Your task to perform on an android device: Search for "acer predator" on costco, select the first entry, and add it to the cart. Image 0: 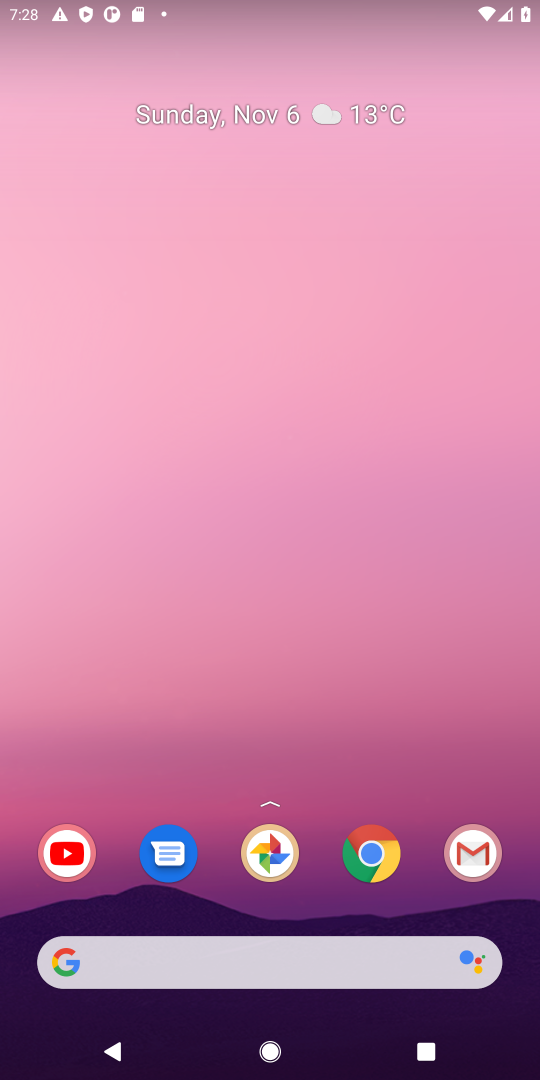
Step 0: click (371, 856)
Your task to perform on an android device: Search for "acer predator" on costco, select the first entry, and add it to the cart. Image 1: 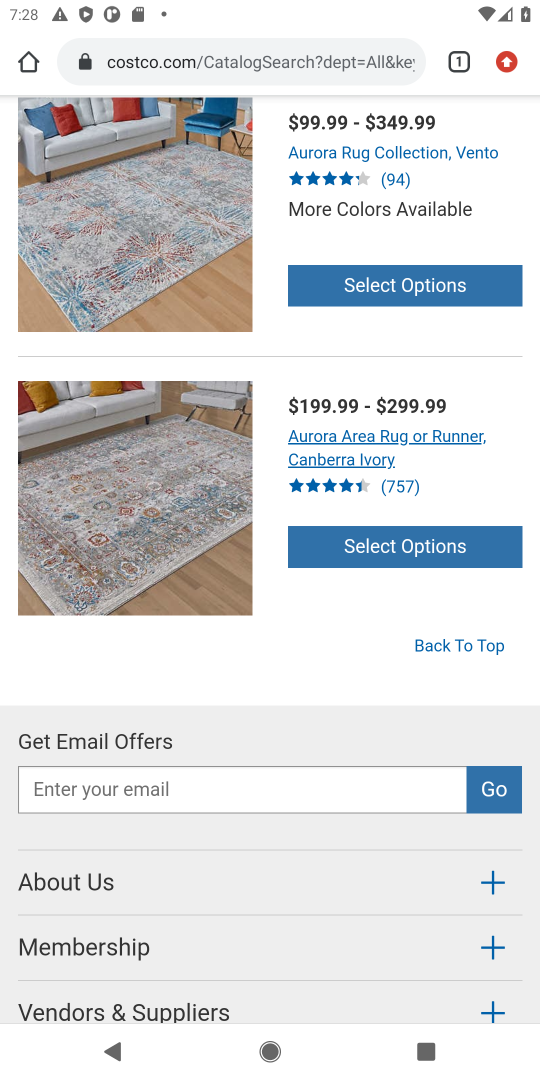
Step 1: click (270, 39)
Your task to perform on an android device: Search for "acer predator" on costco, select the first entry, and add it to the cart. Image 2: 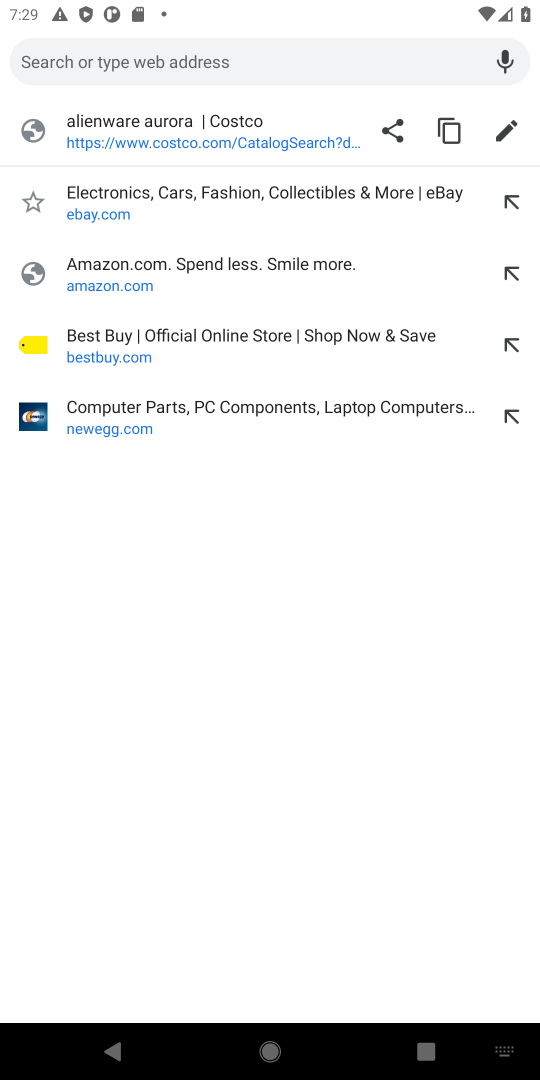
Step 2: type "costco"
Your task to perform on an android device: Search for "acer predator" on costco, select the first entry, and add it to the cart. Image 3: 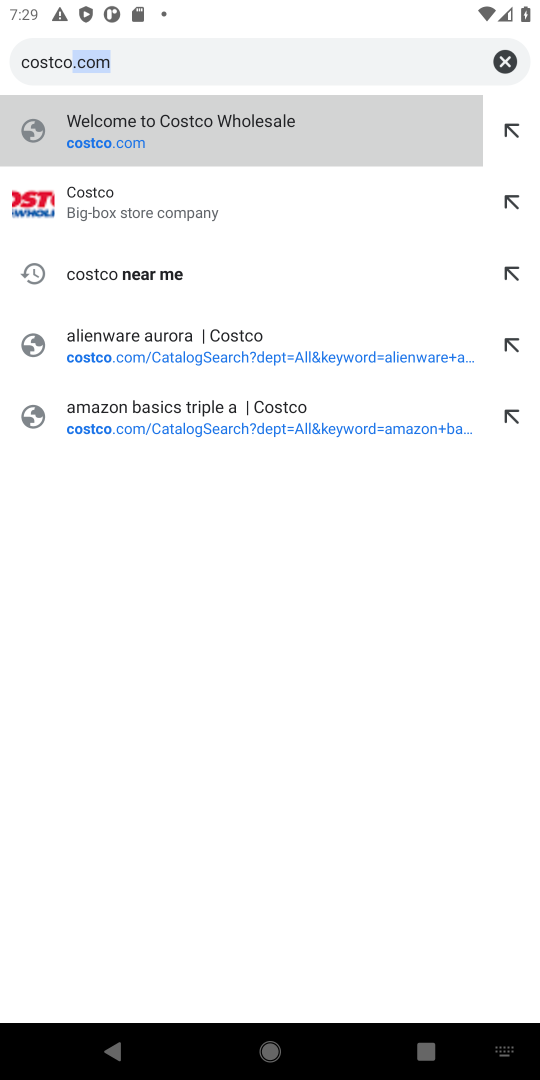
Step 3: click (92, 135)
Your task to perform on an android device: Search for "acer predator" on costco, select the first entry, and add it to the cart. Image 4: 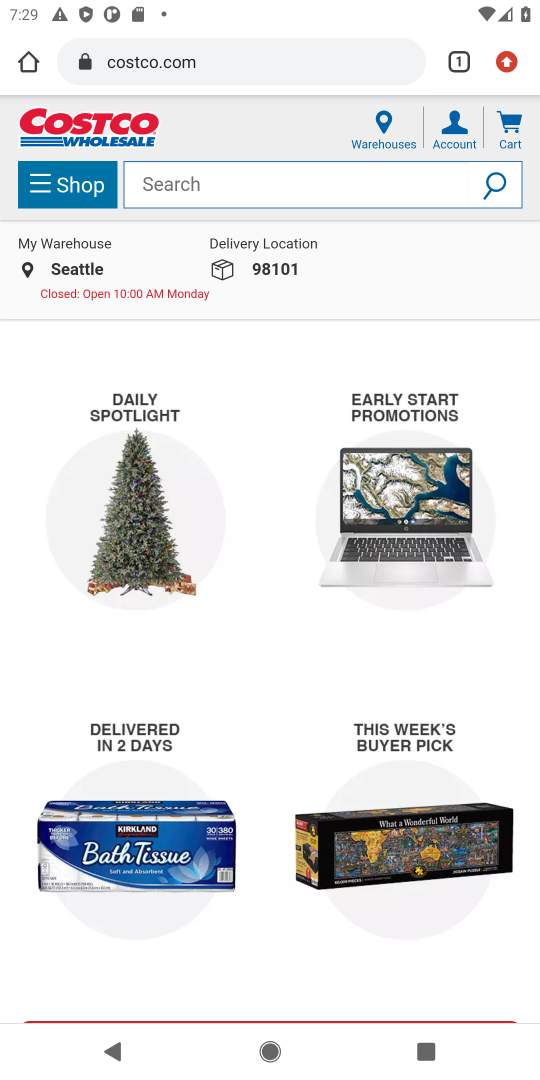
Step 4: click (281, 177)
Your task to perform on an android device: Search for "acer predator" on costco, select the first entry, and add it to the cart. Image 5: 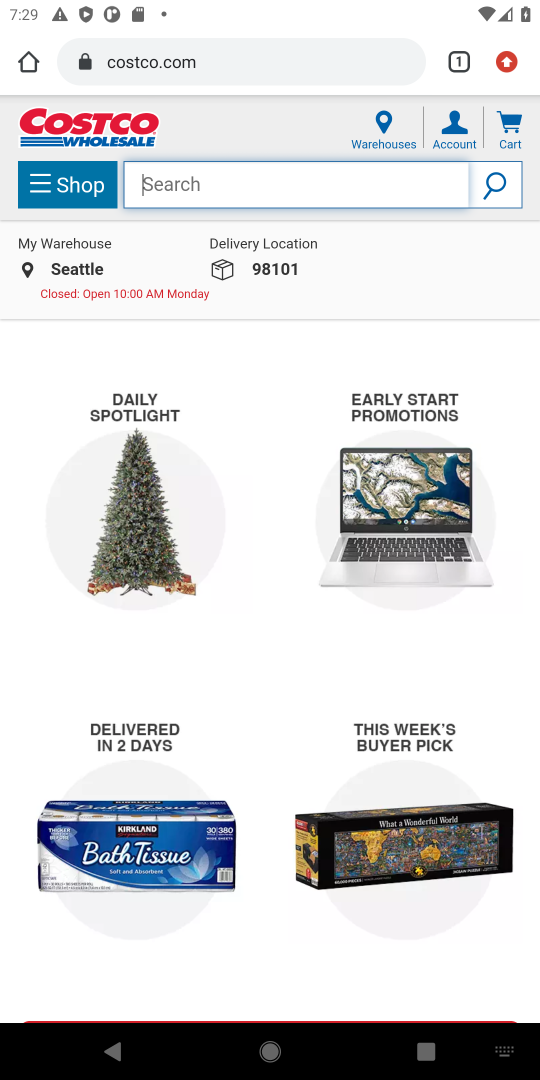
Step 5: type "acer predator"
Your task to perform on an android device: Search for "acer predator" on costco, select the first entry, and add it to the cart. Image 6: 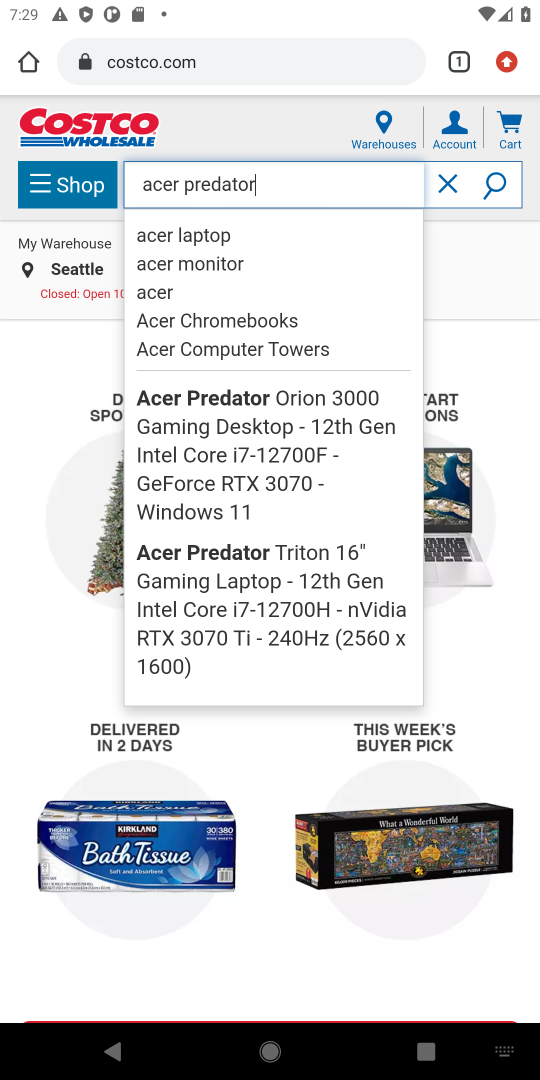
Step 6: click (494, 181)
Your task to perform on an android device: Search for "acer predator" on costco, select the first entry, and add it to the cart. Image 7: 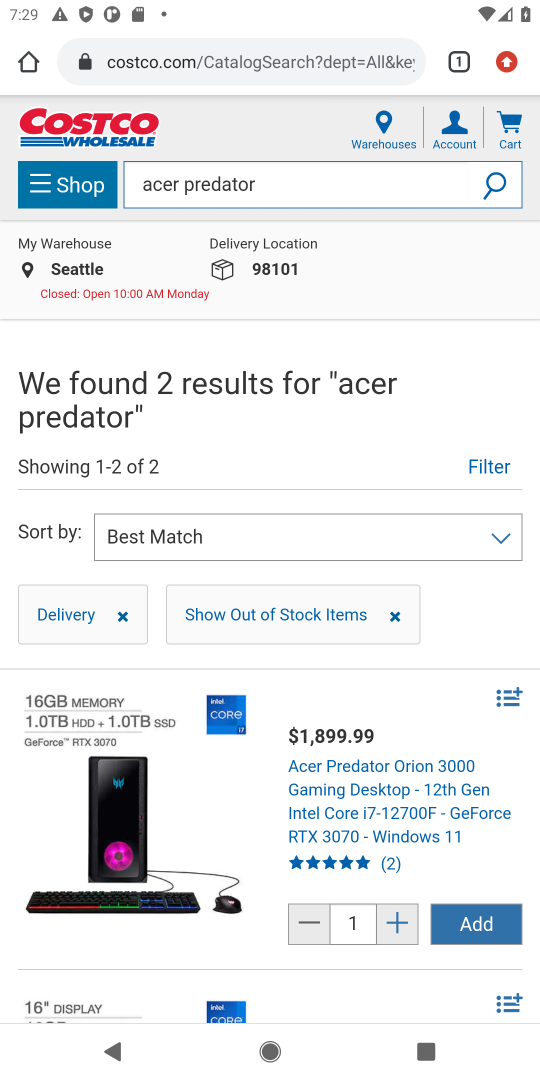
Step 7: task complete